Your task to perform on an android device: open app "Facebook" (install if not already installed) Image 0: 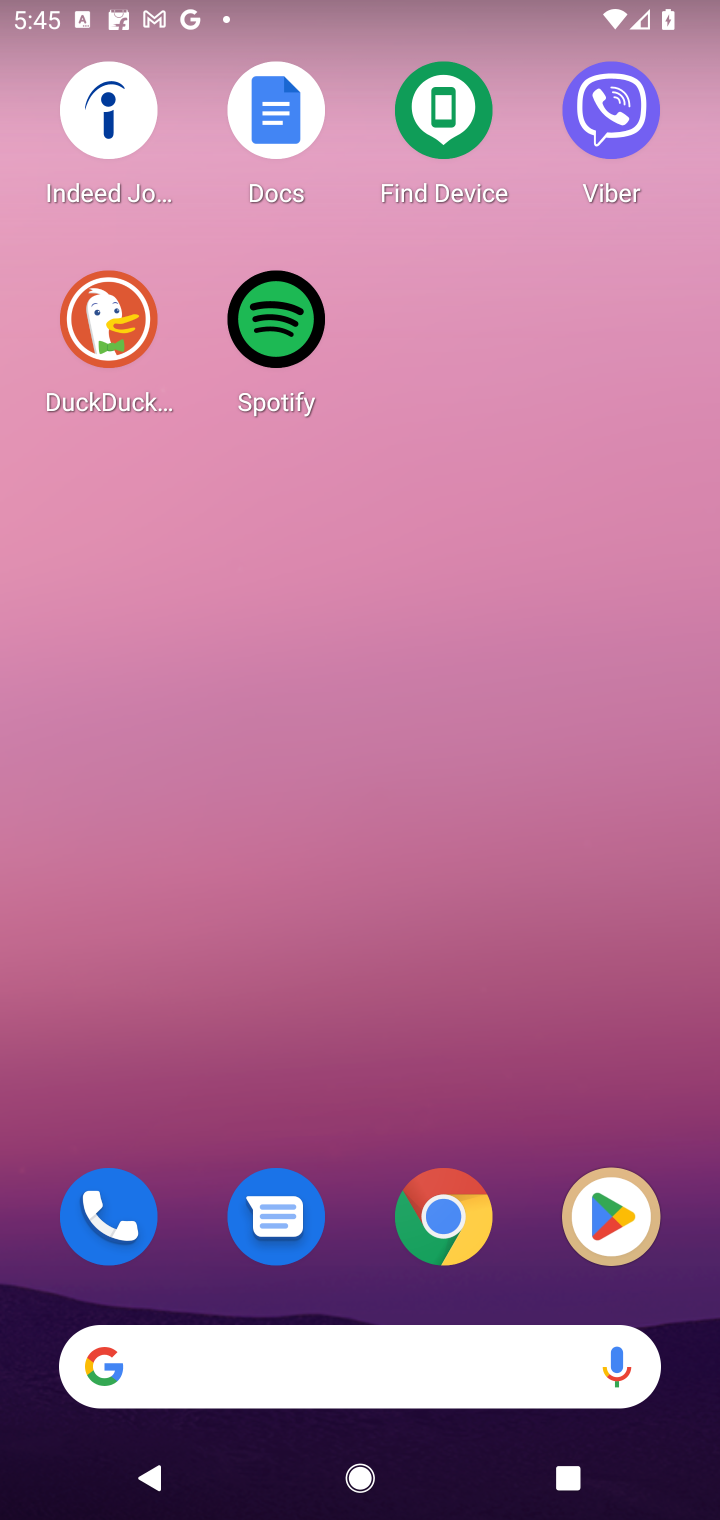
Step 0: click (566, 1176)
Your task to perform on an android device: open app "Facebook" (install if not already installed) Image 1: 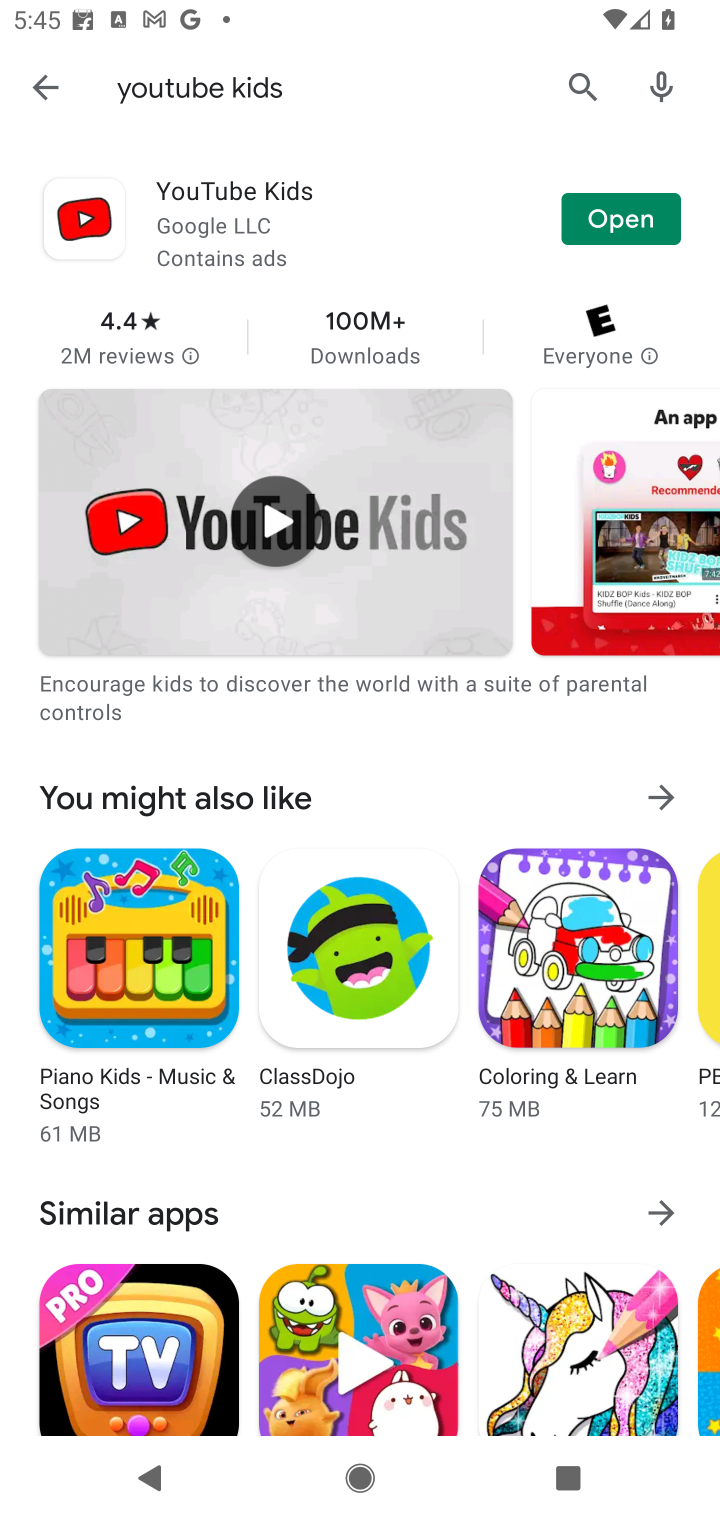
Step 1: click (587, 102)
Your task to perform on an android device: open app "Facebook" (install if not already installed) Image 2: 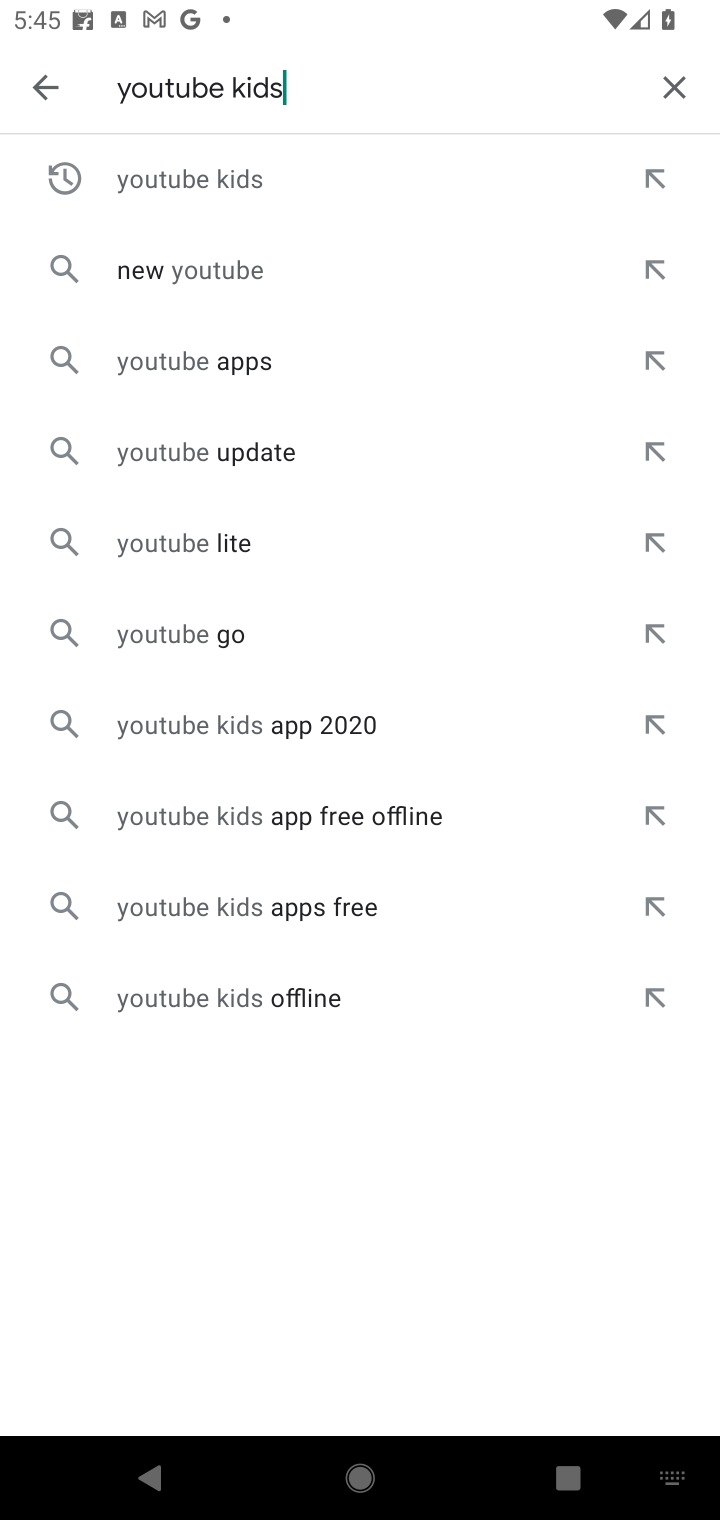
Step 2: click (667, 80)
Your task to perform on an android device: open app "Facebook" (install if not already installed) Image 3: 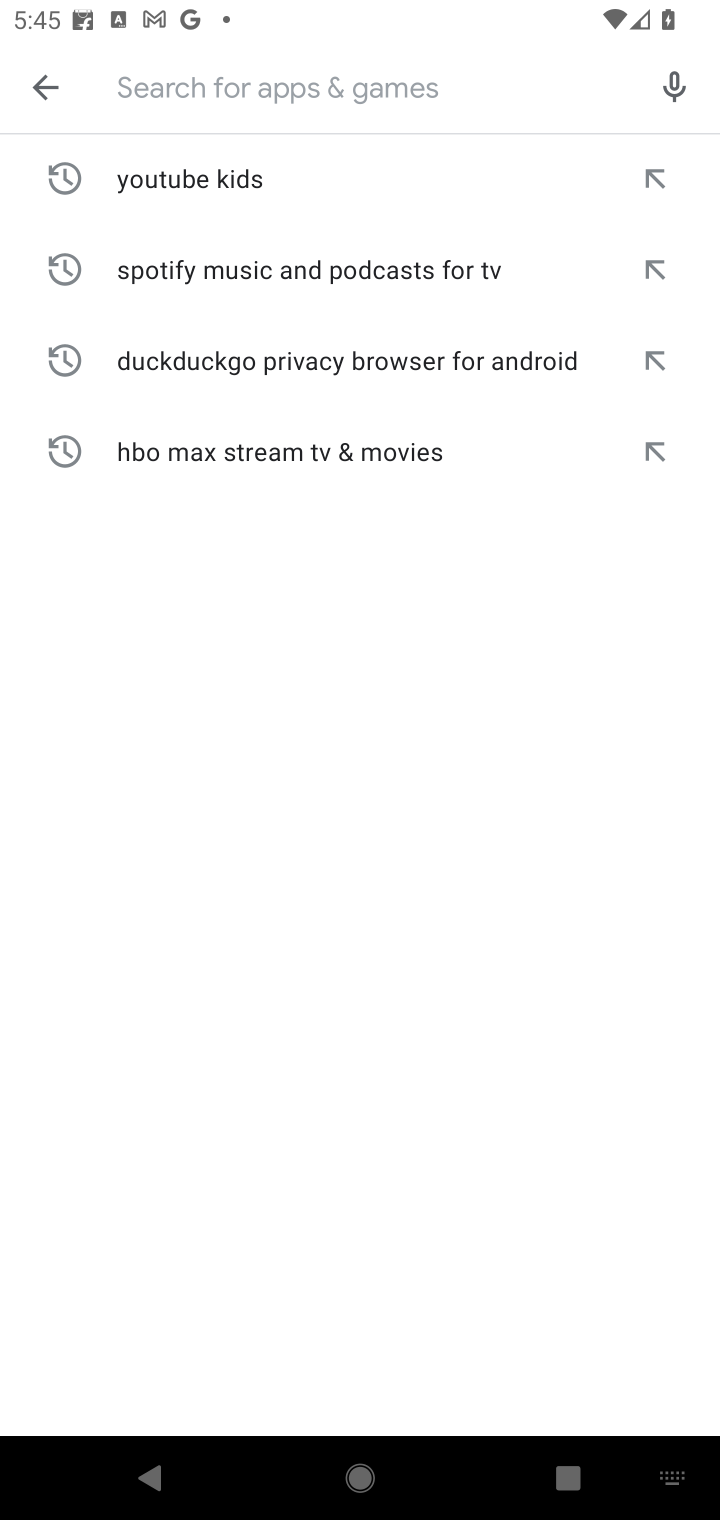
Step 3: type "Facebook"
Your task to perform on an android device: open app "Facebook" (install if not already installed) Image 4: 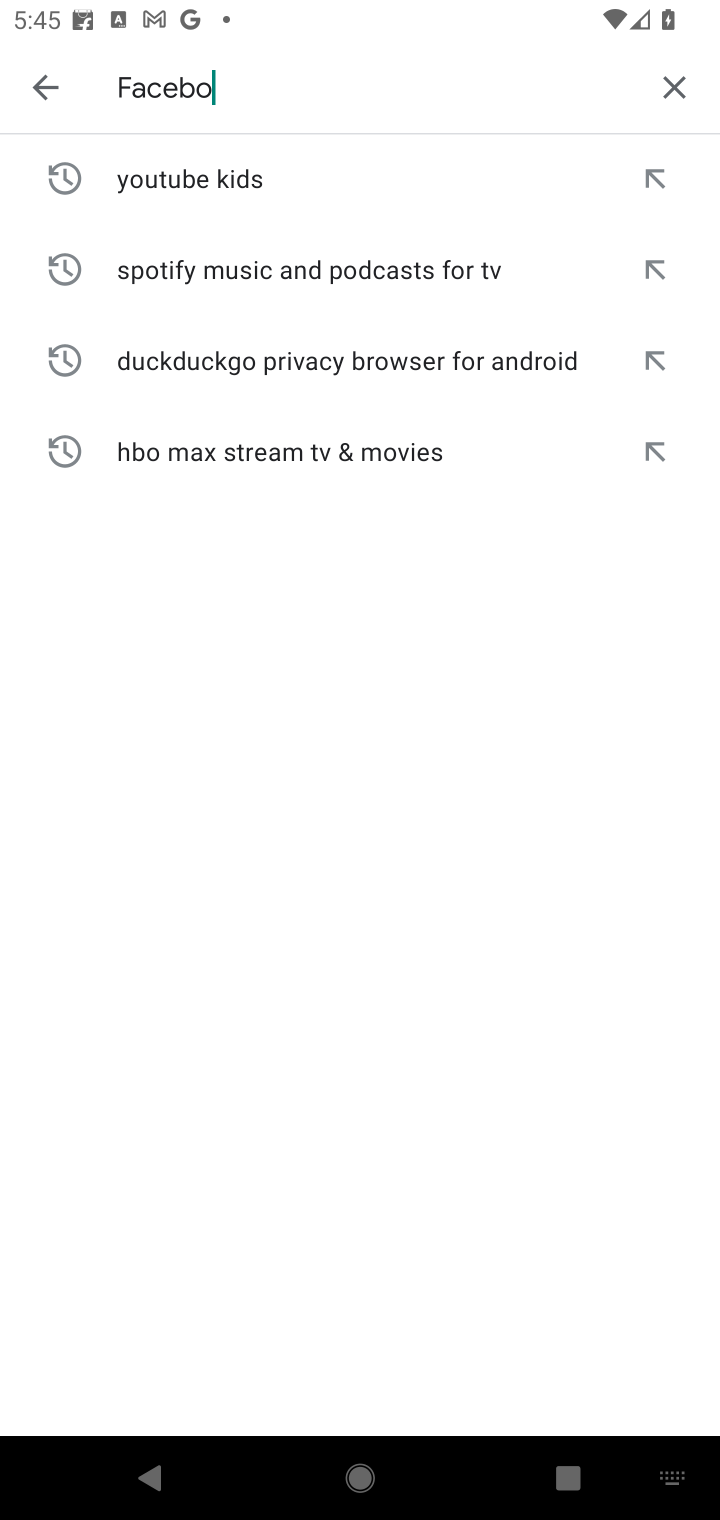
Step 4: type ""
Your task to perform on an android device: open app "Facebook" (install if not already installed) Image 5: 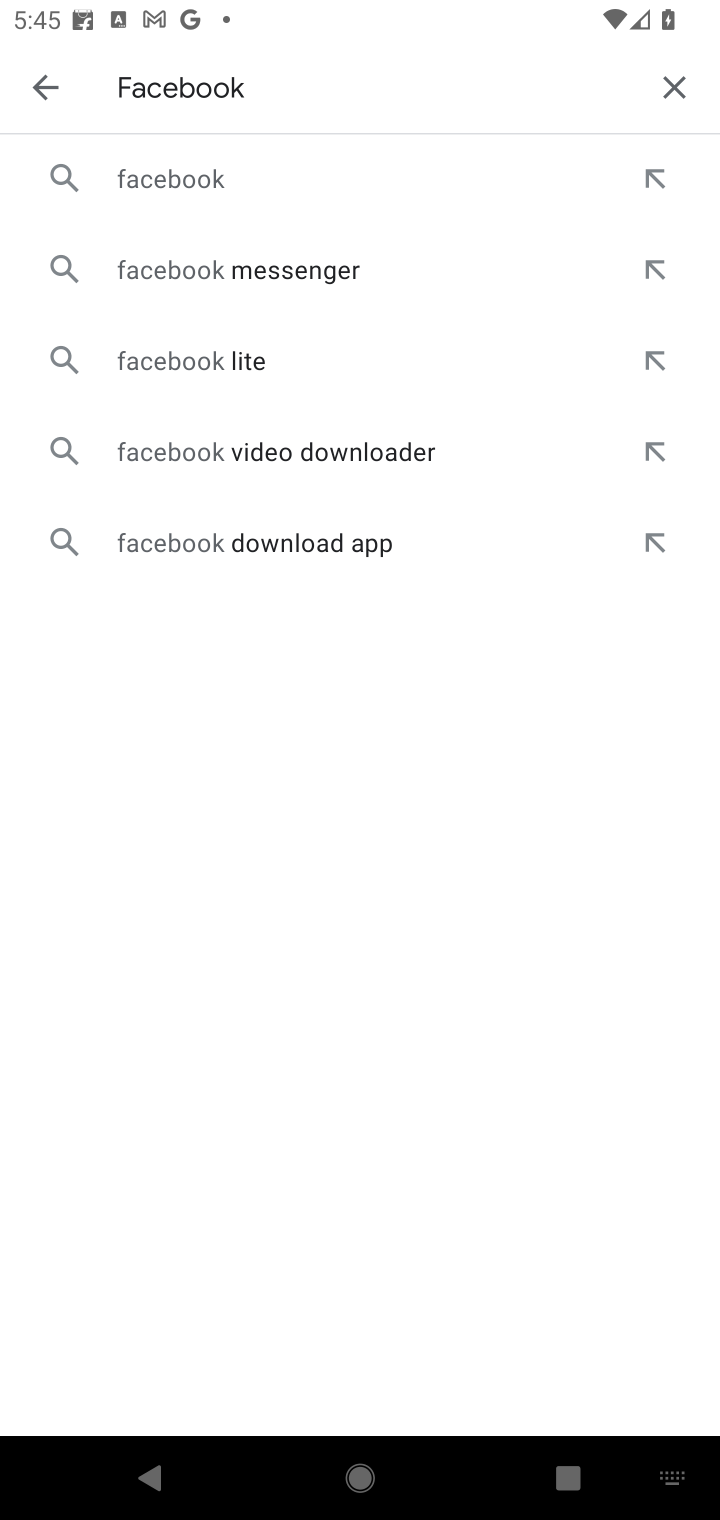
Step 5: click (254, 183)
Your task to perform on an android device: open app "Facebook" (install if not already installed) Image 6: 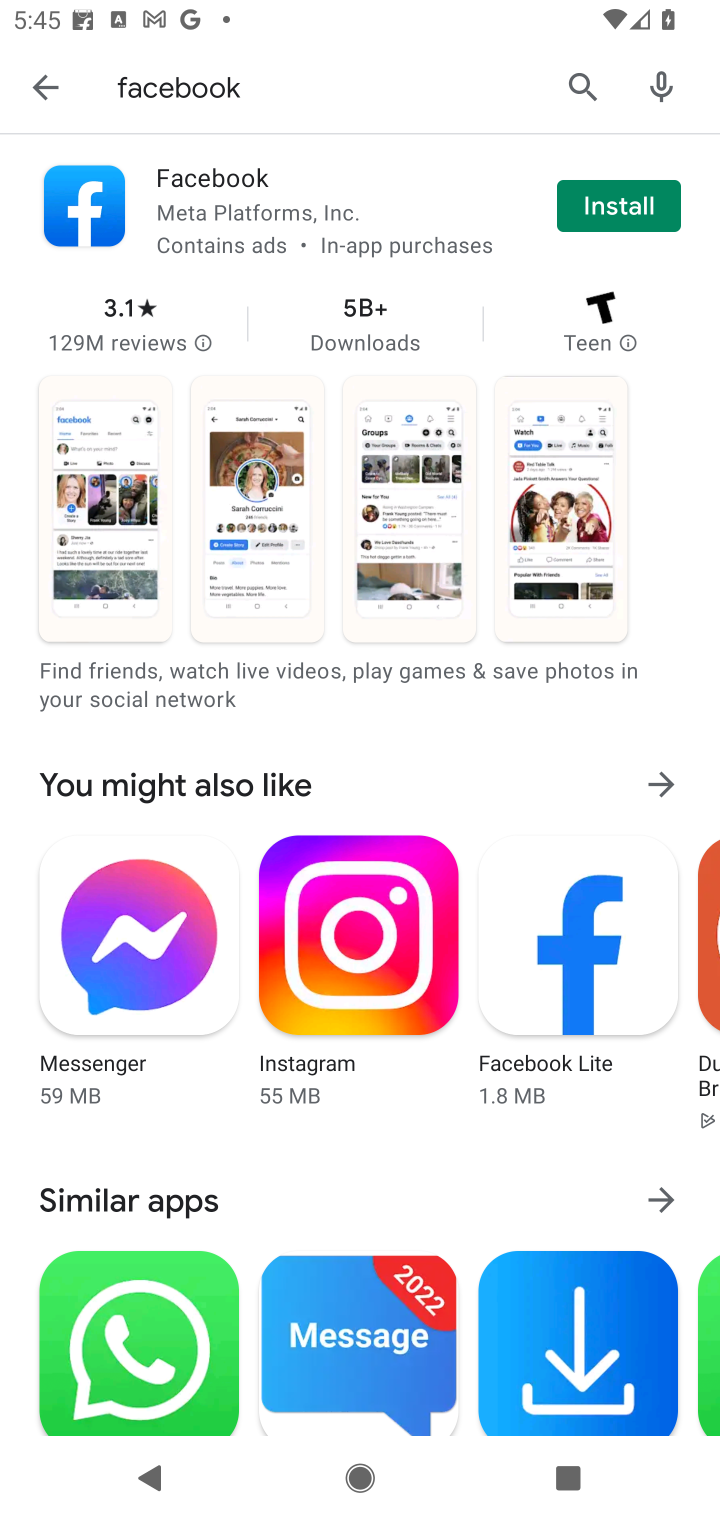
Step 6: click (620, 203)
Your task to perform on an android device: open app "Facebook" (install if not already installed) Image 7: 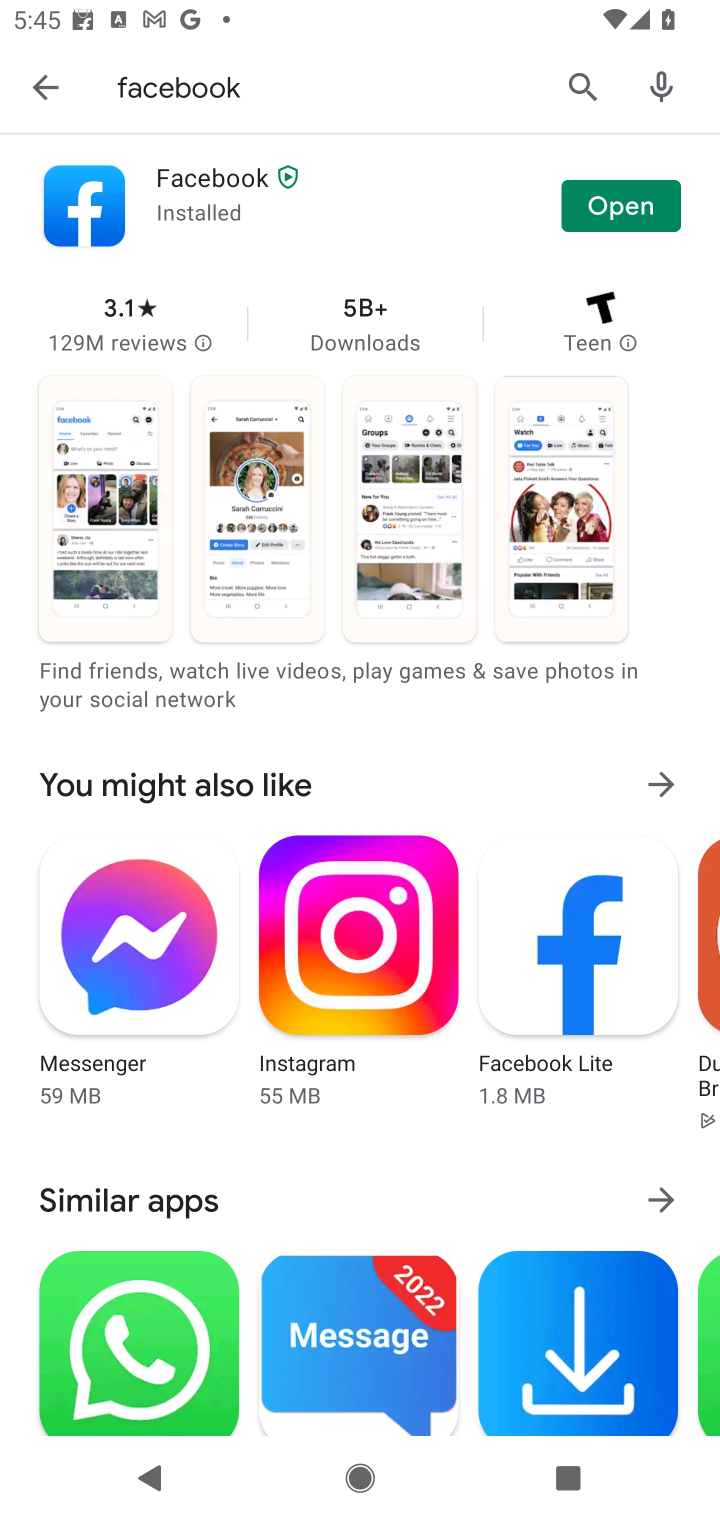
Step 7: click (640, 197)
Your task to perform on an android device: open app "Facebook" (install if not already installed) Image 8: 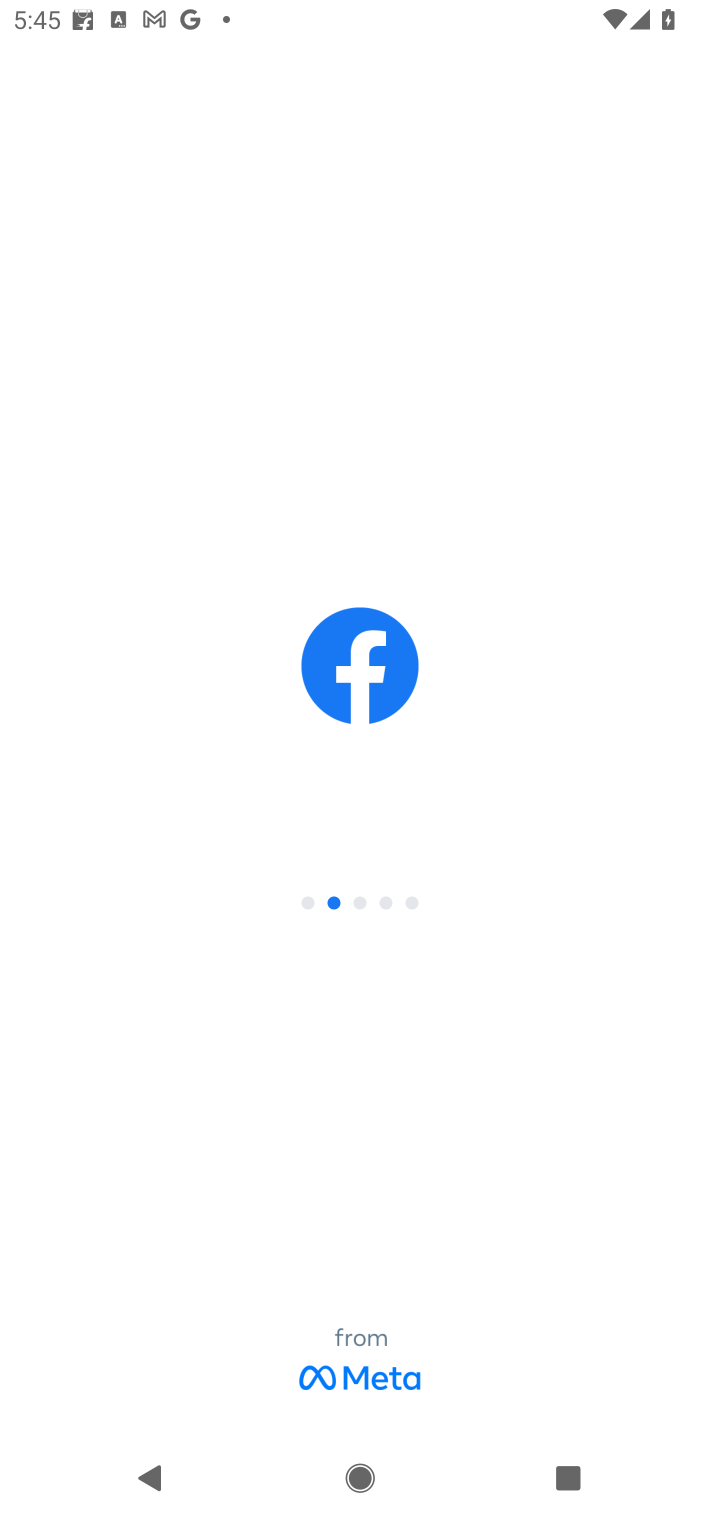
Step 8: task complete